Your task to perform on an android device: What's on my calendar today? Image 0: 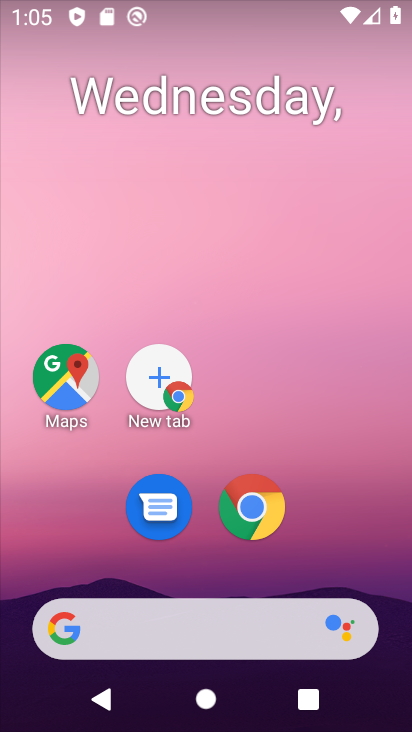
Step 0: drag from (360, 427) to (386, 41)
Your task to perform on an android device: What's on my calendar today? Image 1: 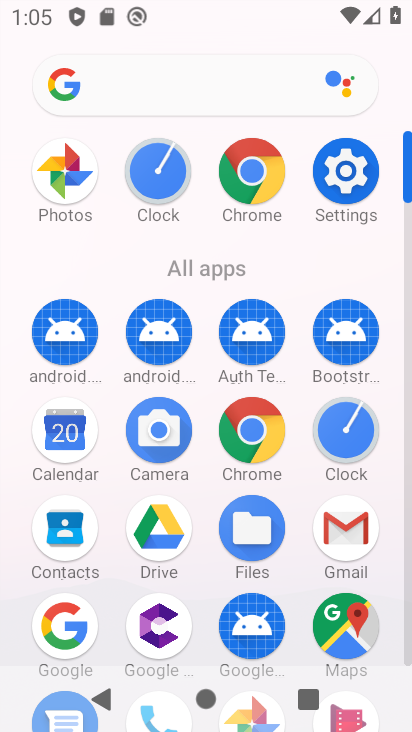
Step 1: click (64, 425)
Your task to perform on an android device: What's on my calendar today? Image 2: 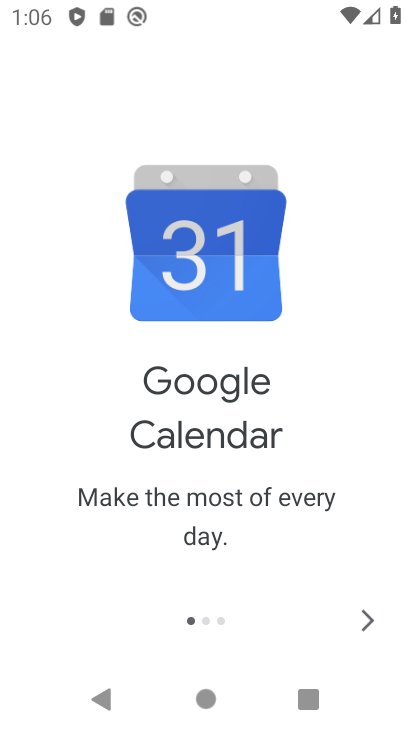
Step 2: click (371, 609)
Your task to perform on an android device: What's on my calendar today? Image 3: 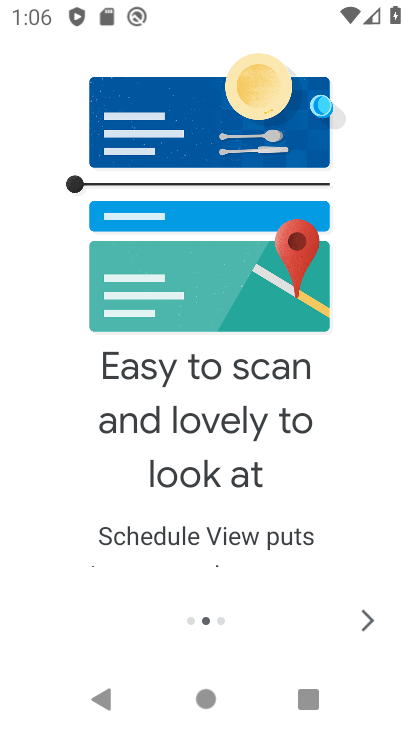
Step 3: click (371, 609)
Your task to perform on an android device: What's on my calendar today? Image 4: 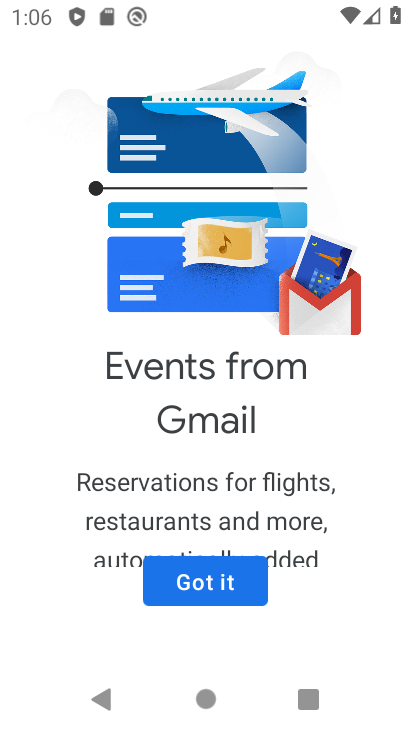
Step 4: click (213, 578)
Your task to perform on an android device: What's on my calendar today? Image 5: 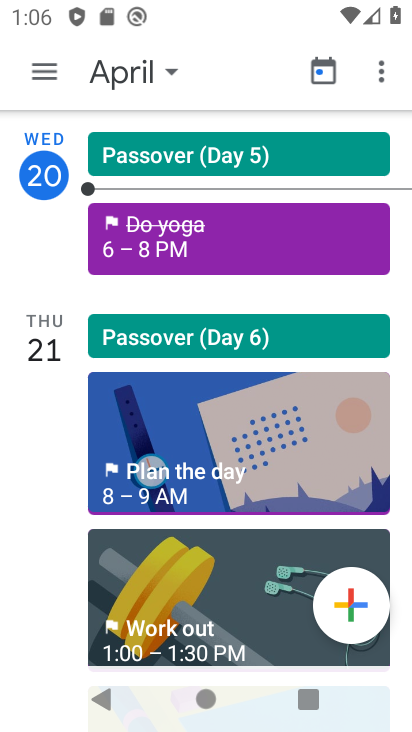
Step 5: click (149, 76)
Your task to perform on an android device: What's on my calendar today? Image 6: 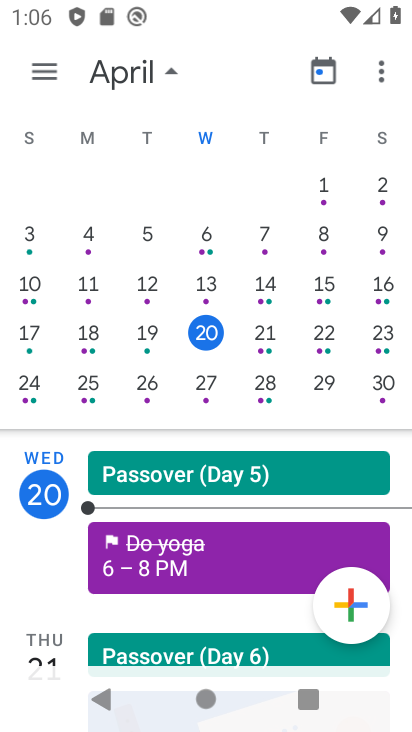
Step 6: click (209, 337)
Your task to perform on an android device: What's on my calendar today? Image 7: 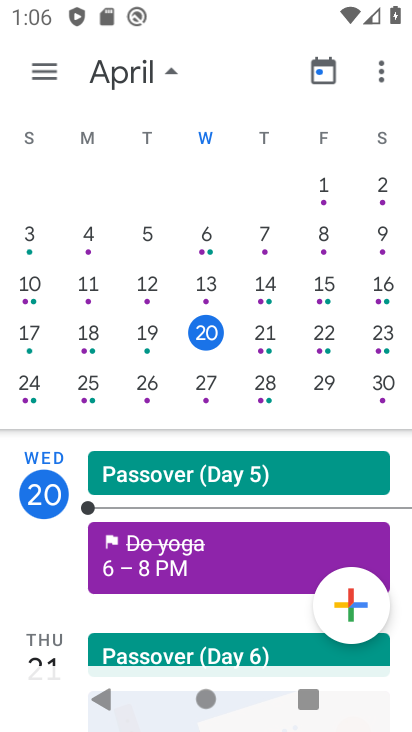
Step 7: task complete